Your task to perform on an android device: What is the news today? Image 0: 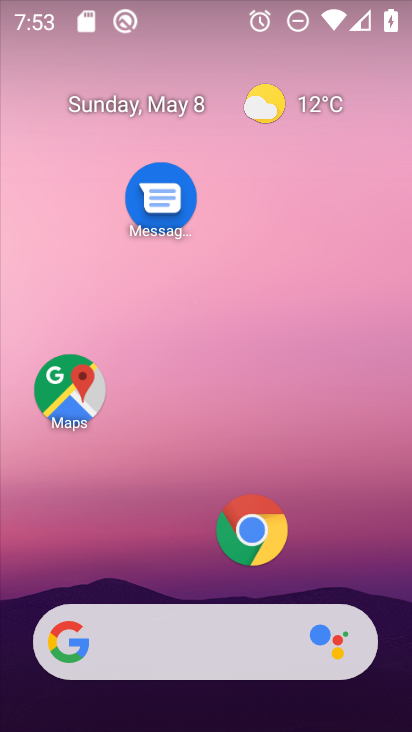
Step 0: press home button
Your task to perform on an android device: What is the news today? Image 1: 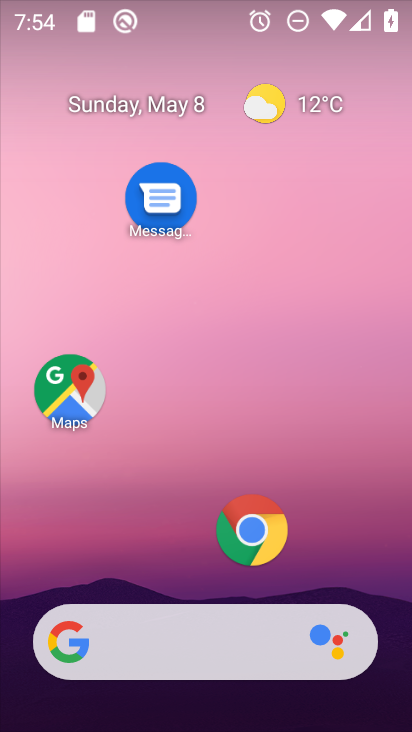
Step 1: task complete